Your task to perform on an android device: remove spam from my inbox in the gmail app Image 0: 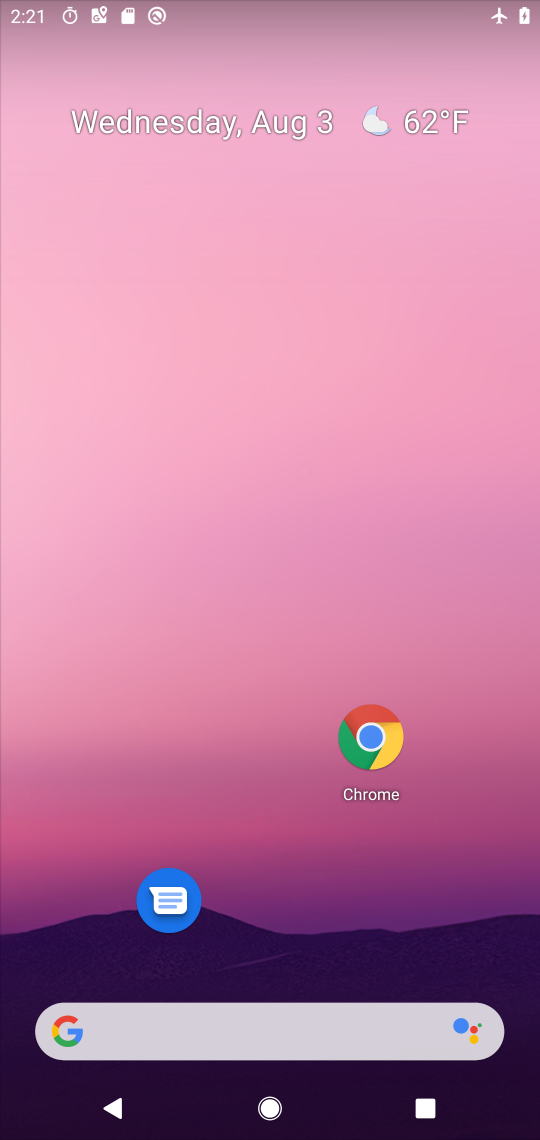
Step 0: drag from (271, 111) to (271, 5)
Your task to perform on an android device: remove spam from my inbox in the gmail app Image 1: 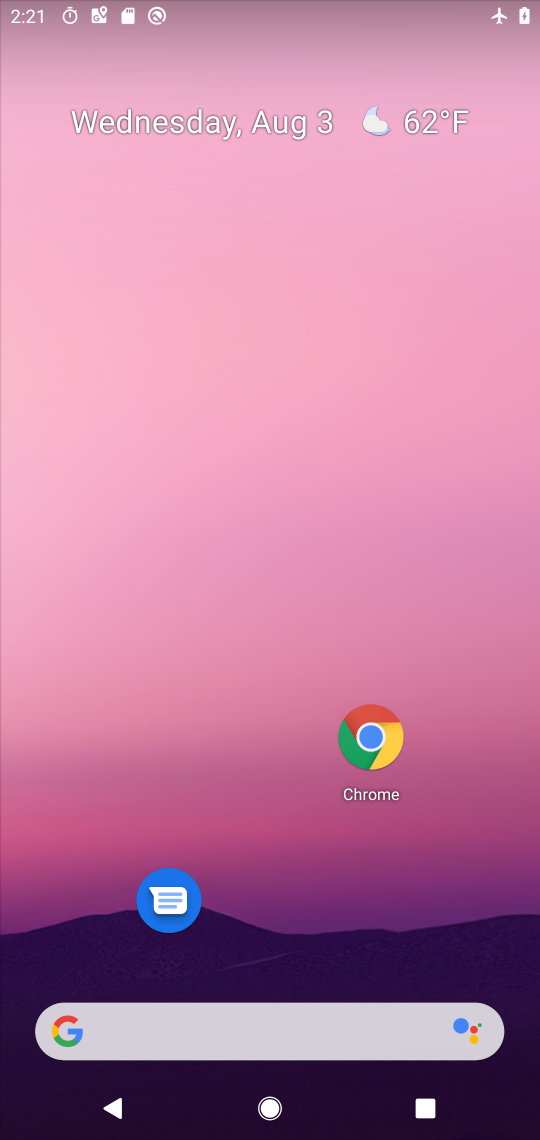
Step 1: drag from (231, 834) to (277, 105)
Your task to perform on an android device: remove spam from my inbox in the gmail app Image 2: 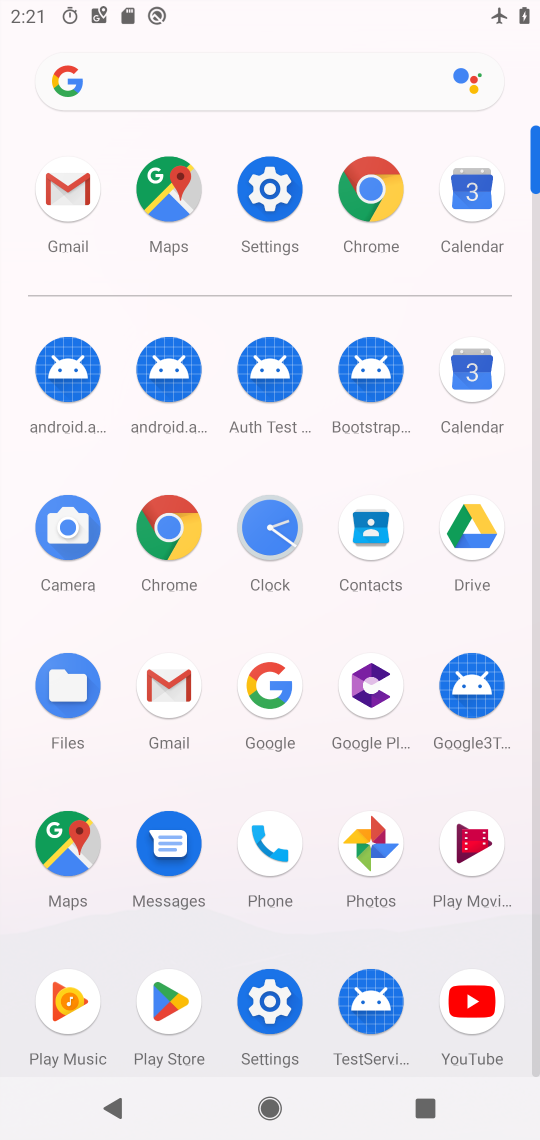
Step 2: click (58, 200)
Your task to perform on an android device: remove spam from my inbox in the gmail app Image 3: 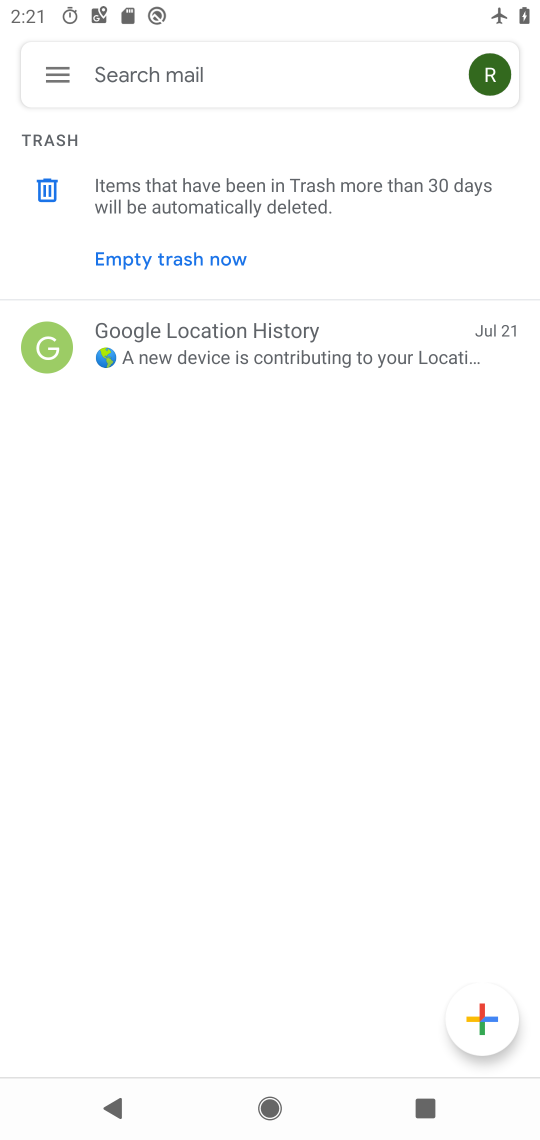
Step 3: click (58, 69)
Your task to perform on an android device: remove spam from my inbox in the gmail app Image 4: 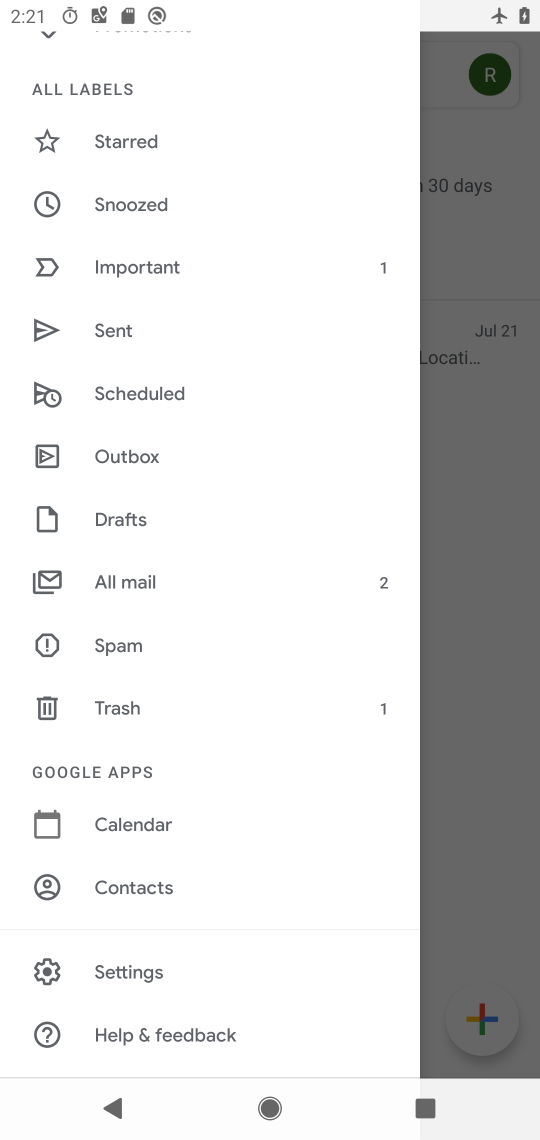
Step 4: click (134, 646)
Your task to perform on an android device: remove spam from my inbox in the gmail app Image 5: 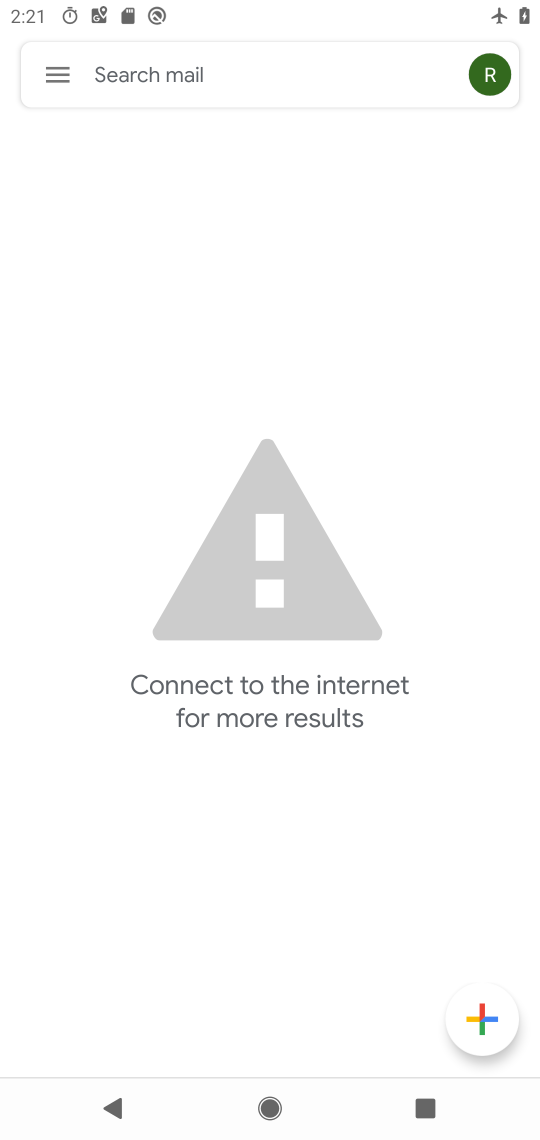
Step 5: task complete